Your task to perform on an android device: Open maps Image 0: 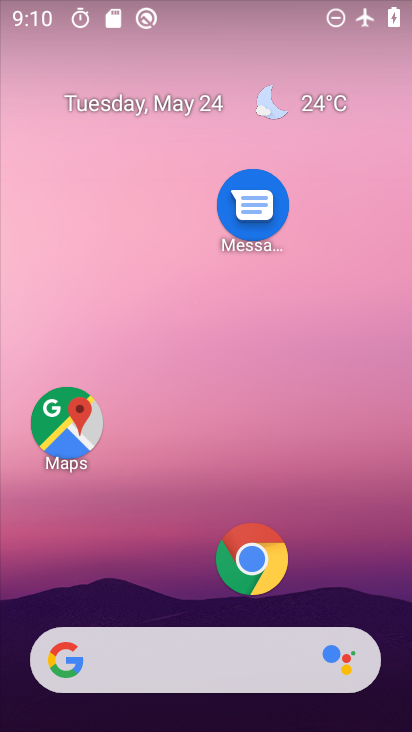
Step 0: click (90, 430)
Your task to perform on an android device: Open maps Image 1: 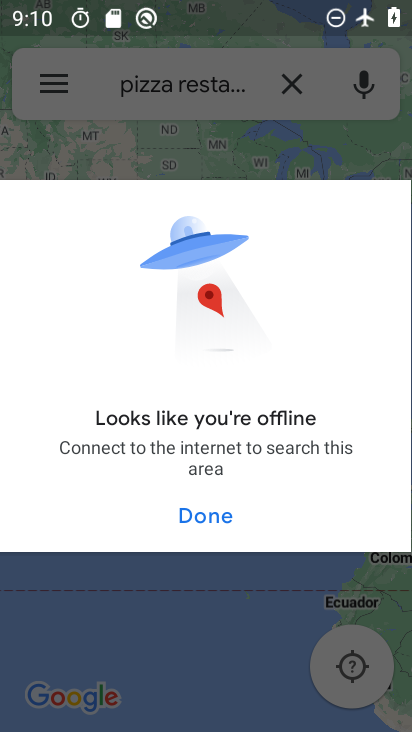
Step 1: task complete